Your task to perform on an android device: add a contact in the contacts app Image 0: 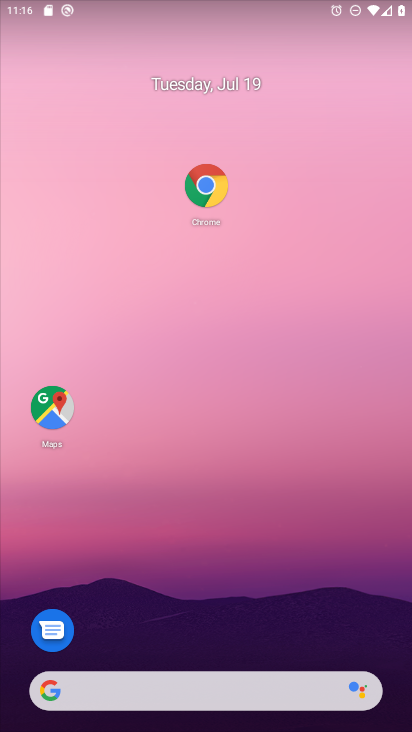
Step 0: drag from (275, 638) to (262, 126)
Your task to perform on an android device: add a contact in the contacts app Image 1: 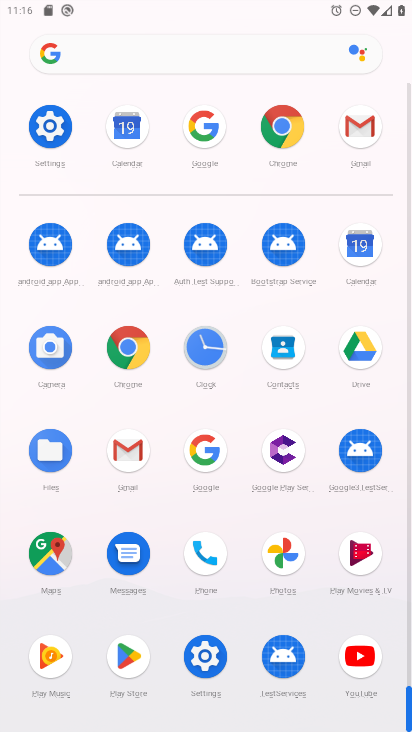
Step 1: click (289, 365)
Your task to perform on an android device: add a contact in the contacts app Image 2: 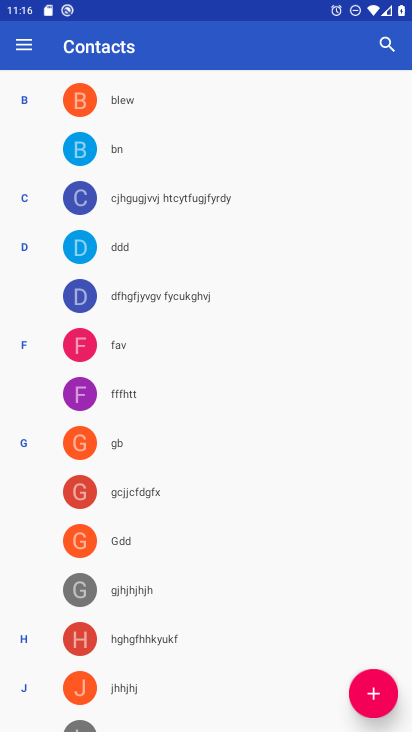
Step 2: click (387, 700)
Your task to perform on an android device: add a contact in the contacts app Image 3: 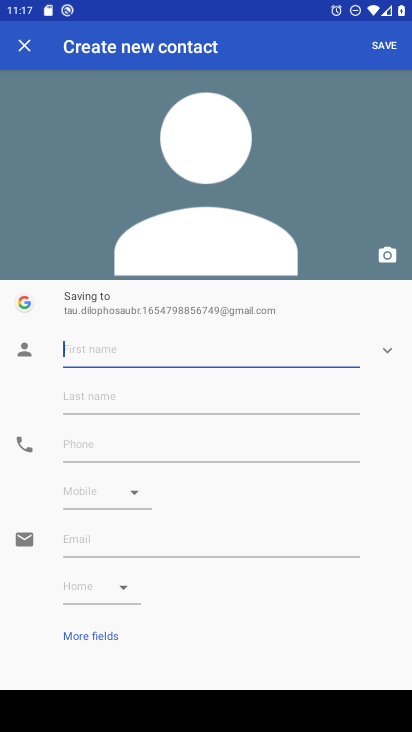
Step 3: type "iuyjfvb"
Your task to perform on an android device: add a contact in the contacts app Image 4: 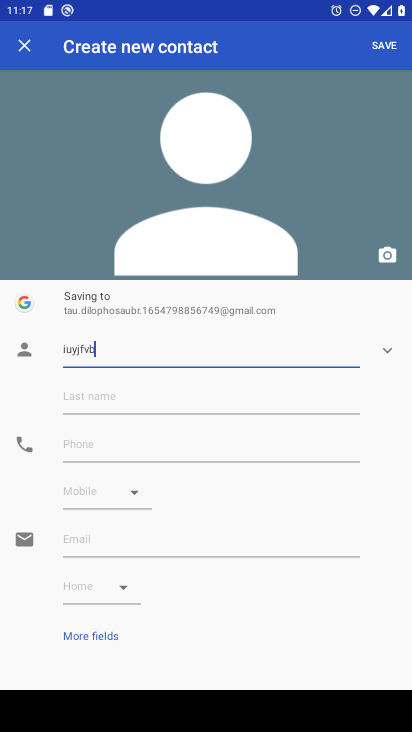
Step 4: click (256, 460)
Your task to perform on an android device: add a contact in the contacts app Image 5: 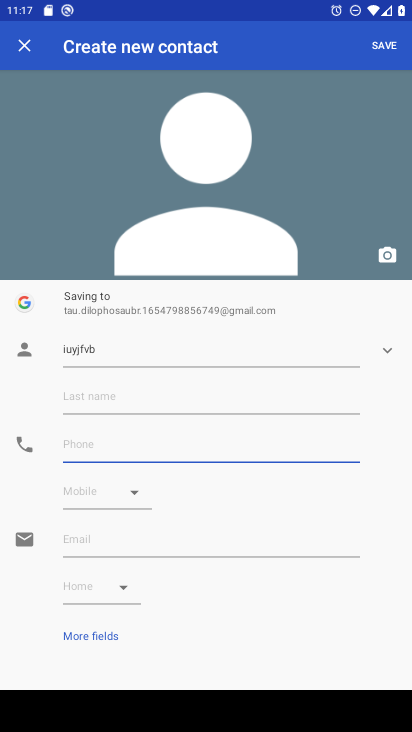
Step 5: type "98765678"
Your task to perform on an android device: add a contact in the contacts app Image 6: 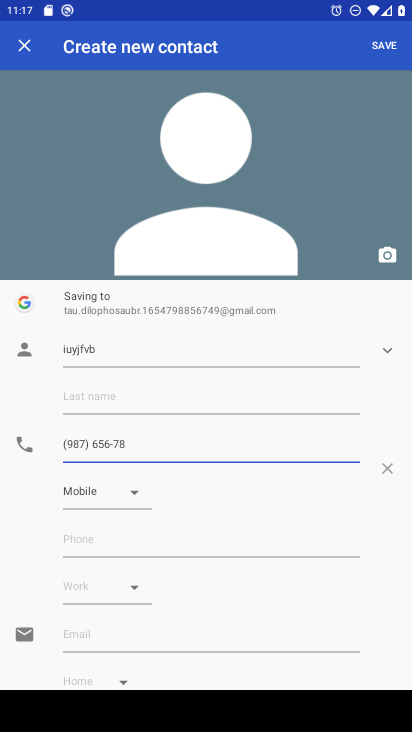
Step 6: click (373, 53)
Your task to perform on an android device: add a contact in the contacts app Image 7: 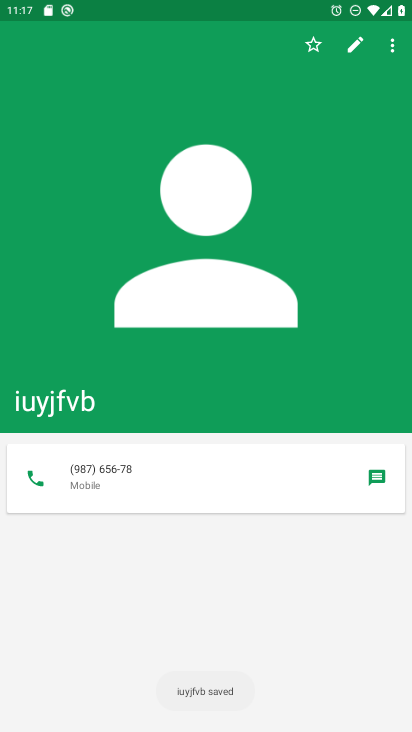
Step 7: task complete